Your task to perform on an android device: Search for pizza restaurants on Maps Image 0: 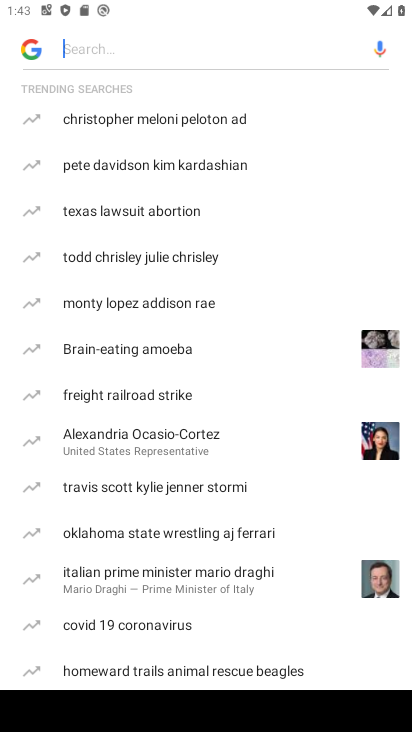
Step 0: press home button
Your task to perform on an android device: Search for pizza restaurants on Maps Image 1: 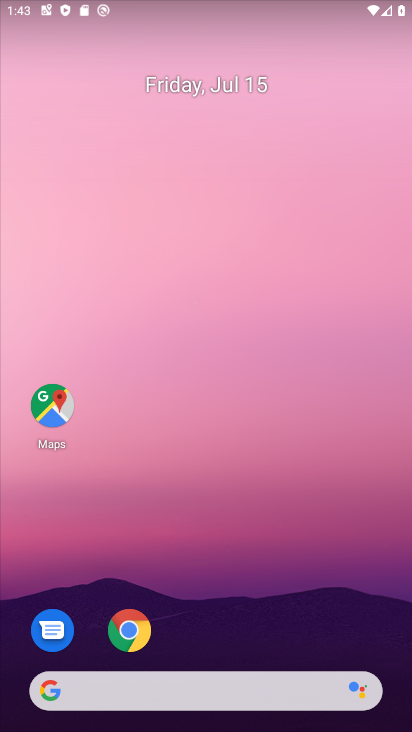
Step 1: click (42, 405)
Your task to perform on an android device: Search for pizza restaurants on Maps Image 2: 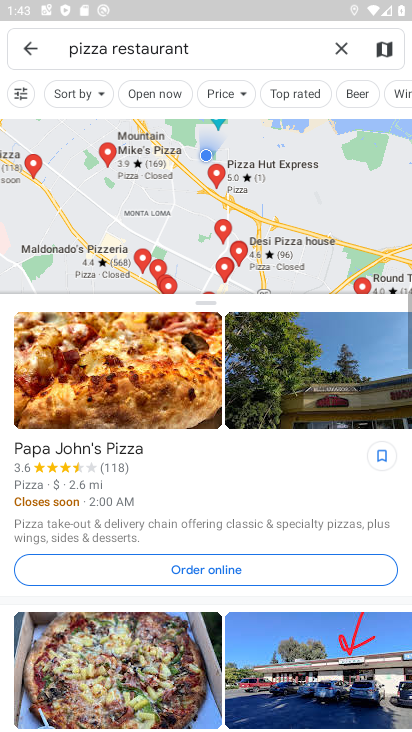
Step 2: click (22, 42)
Your task to perform on an android device: Search for pizza restaurants on Maps Image 3: 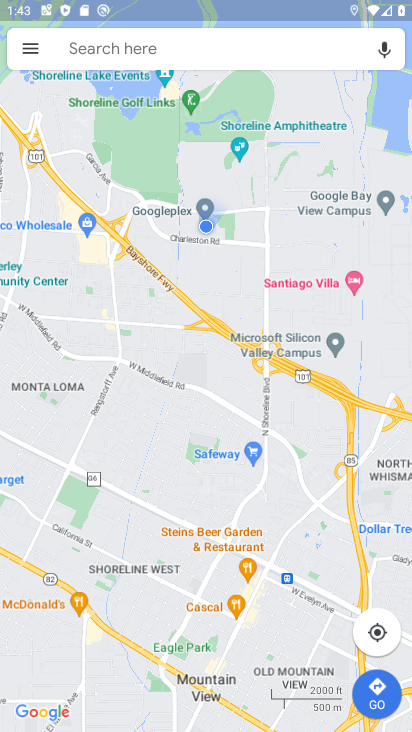
Step 3: click (92, 57)
Your task to perform on an android device: Search for pizza restaurants on Maps Image 4: 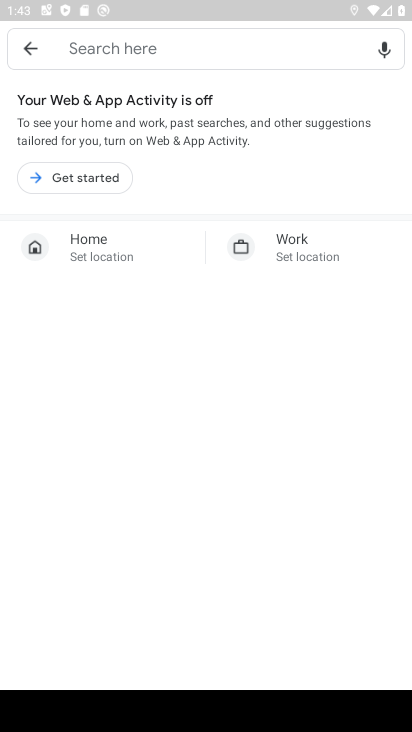
Step 4: type "pizza restaurants"
Your task to perform on an android device: Search for pizza restaurants on Maps Image 5: 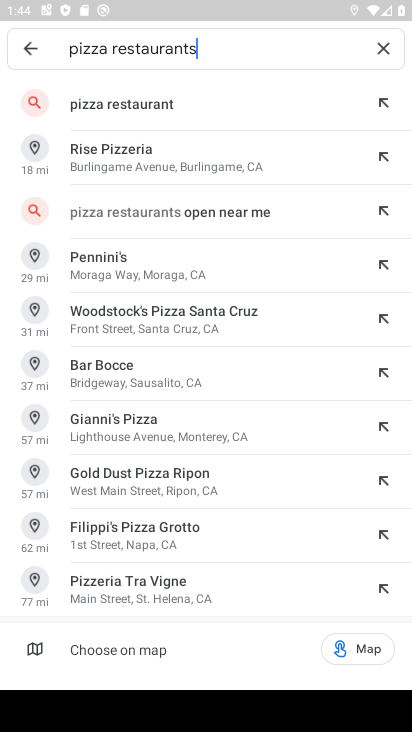
Step 5: click (147, 101)
Your task to perform on an android device: Search for pizza restaurants on Maps Image 6: 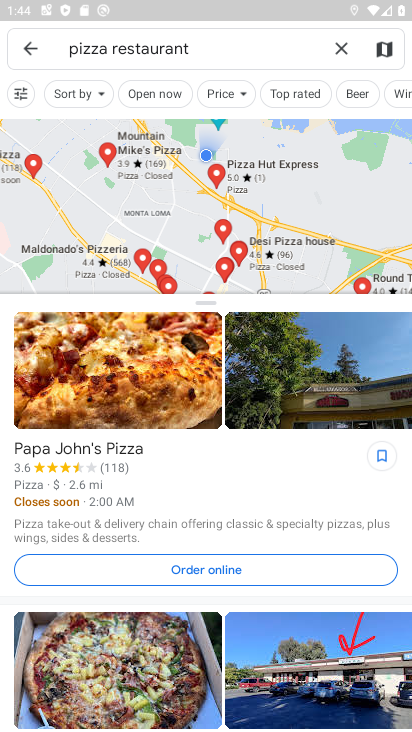
Step 6: task complete